Your task to perform on an android device: turn on location history Image 0: 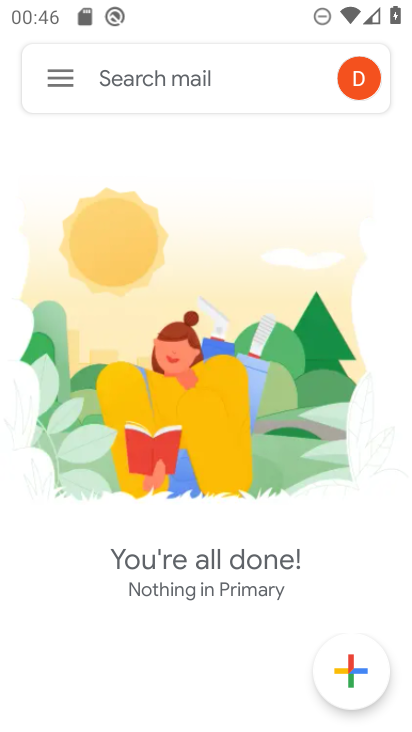
Step 0: press home button
Your task to perform on an android device: turn on location history Image 1: 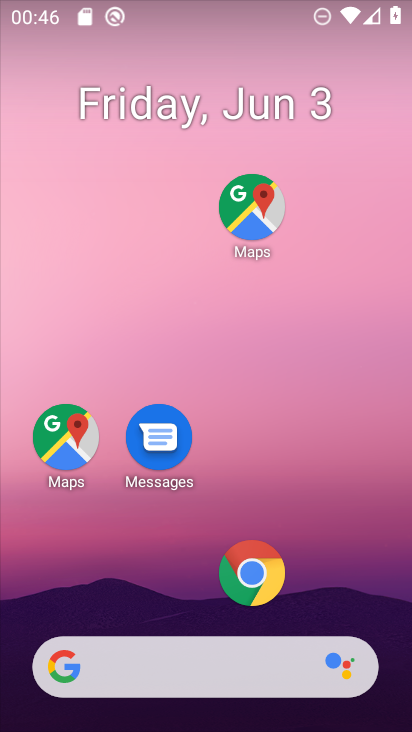
Step 1: drag from (334, 591) to (252, 139)
Your task to perform on an android device: turn on location history Image 2: 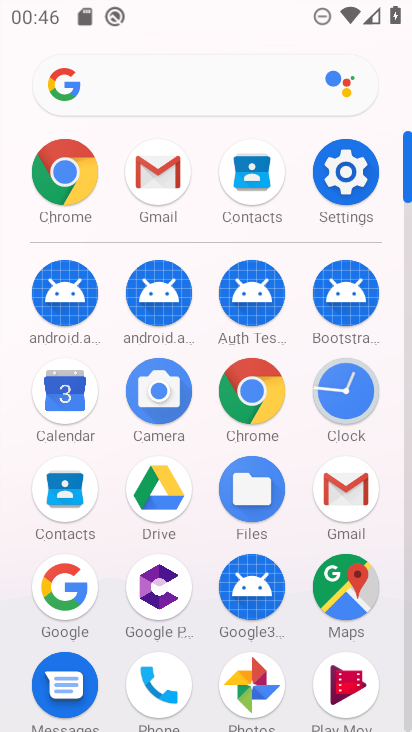
Step 2: click (342, 178)
Your task to perform on an android device: turn on location history Image 3: 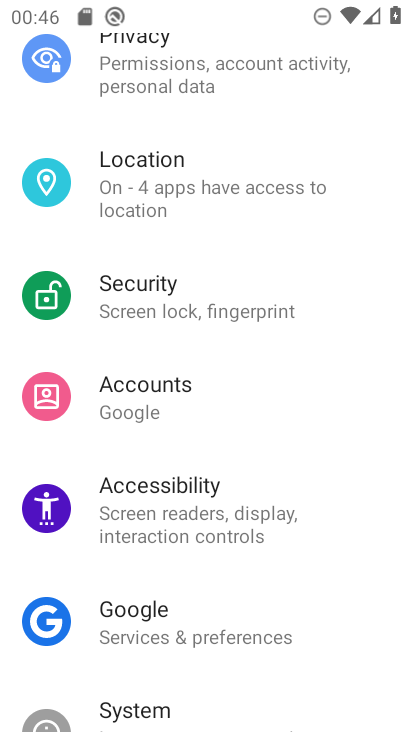
Step 3: click (232, 188)
Your task to perform on an android device: turn on location history Image 4: 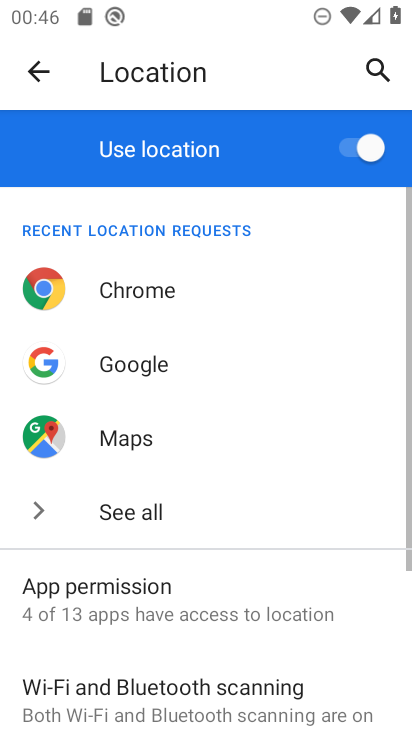
Step 4: drag from (264, 588) to (231, 250)
Your task to perform on an android device: turn on location history Image 5: 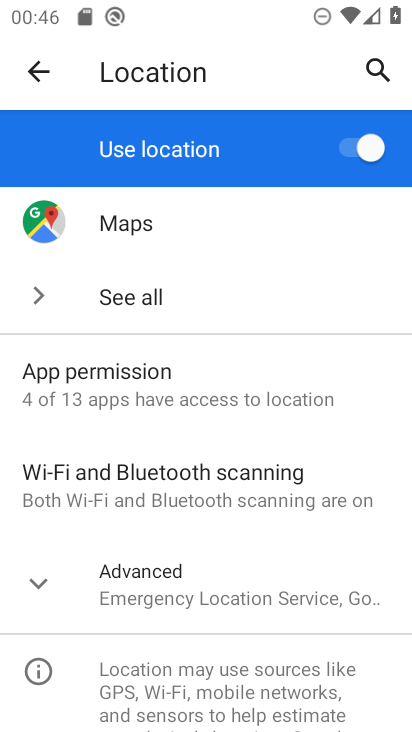
Step 5: click (244, 609)
Your task to perform on an android device: turn on location history Image 6: 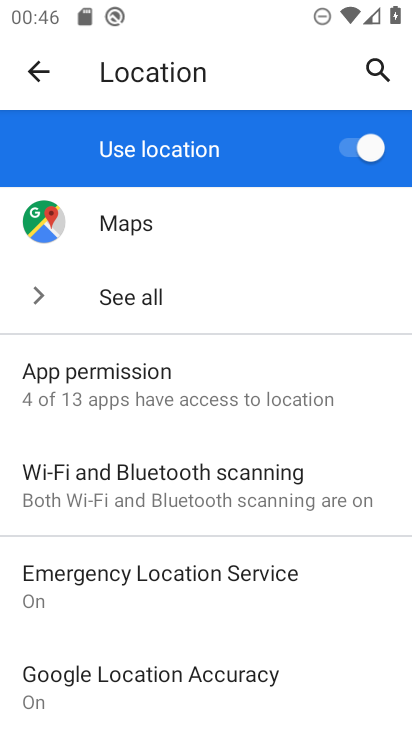
Step 6: drag from (285, 613) to (263, 351)
Your task to perform on an android device: turn on location history Image 7: 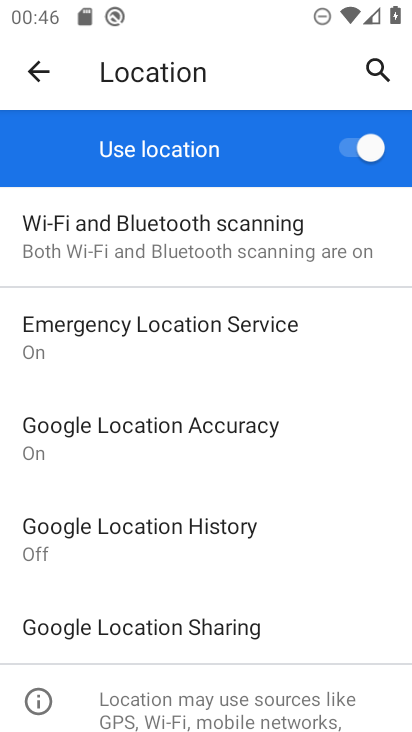
Step 7: click (217, 442)
Your task to perform on an android device: turn on location history Image 8: 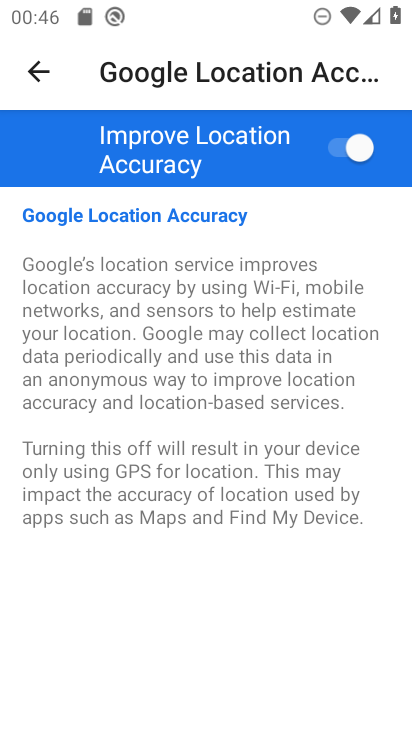
Step 8: press back button
Your task to perform on an android device: turn on location history Image 9: 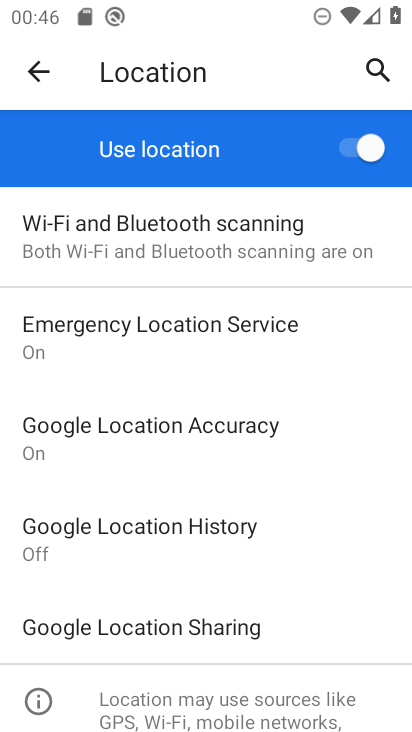
Step 9: click (211, 503)
Your task to perform on an android device: turn on location history Image 10: 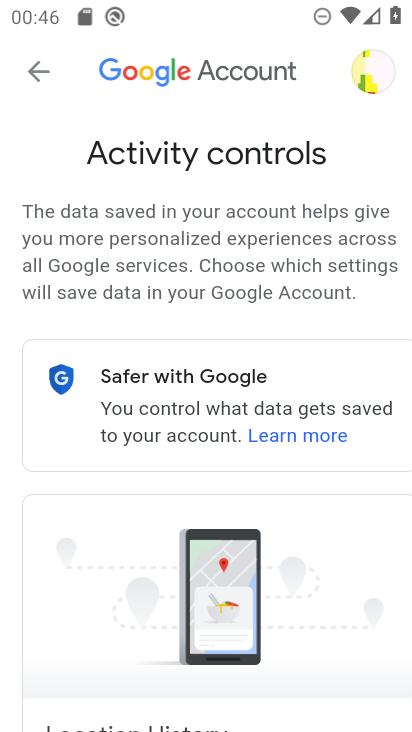
Step 10: task complete